Your task to perform on an android device: Go to sound settings Image 0: 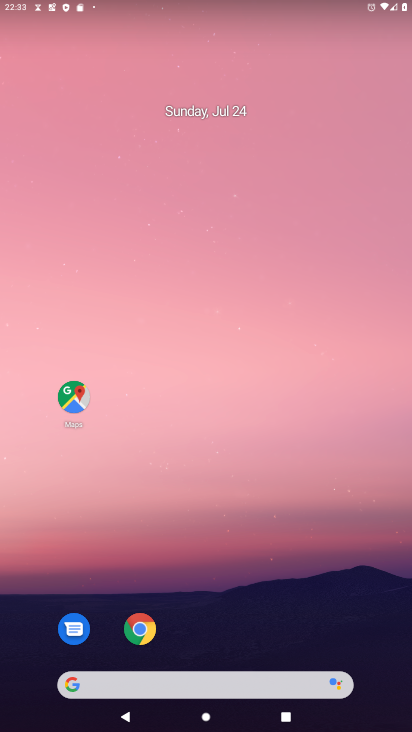
Step 0: click (216, 172)
Your task to perform on an android device: Go to sound settings Image 1: 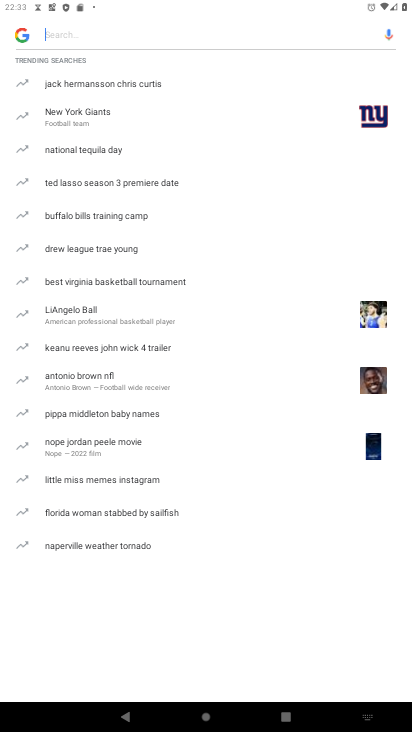
Step 1: press home button
Your task to perform on an android device: Go to sound settings Image 2: 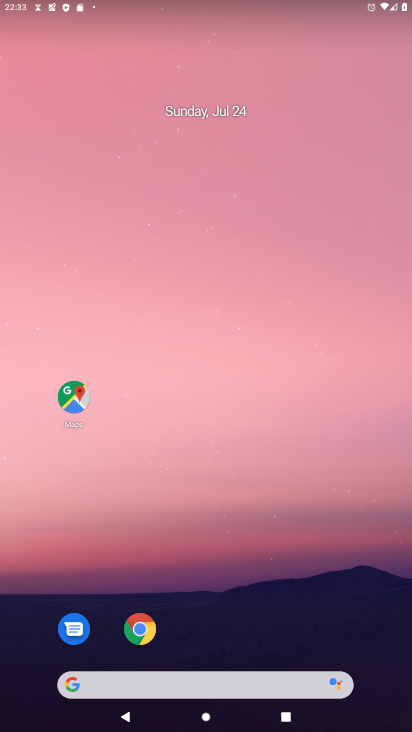
Step 2: drag from (186, 655) to (224, 68)
Your task to perform on an android device: Go to sound settings Image 3: 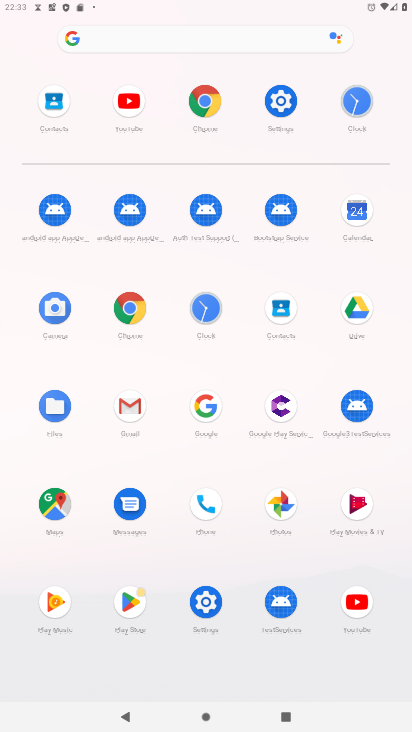
Step 3: click (284, 98)
Your task to perform on an android device: Go to sound settings Image 4: 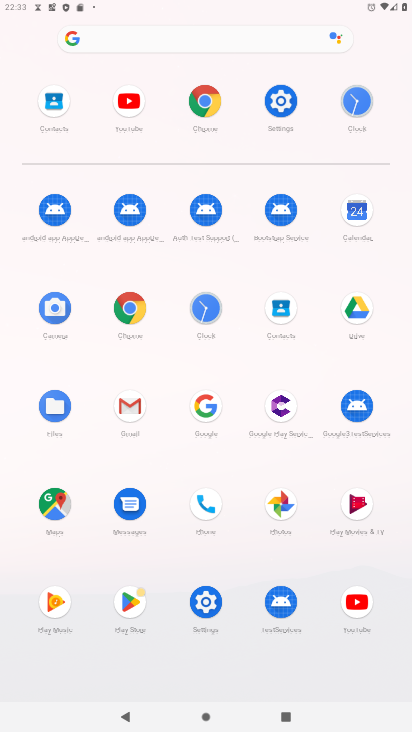
Step 4: click (284, 98)
Your task to perform on an android device: Go to sound settings Image 5: 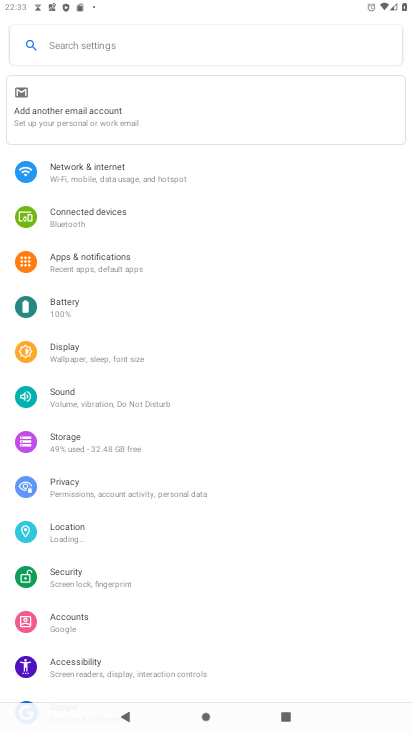
Step 5: click (72, 400)
Your task to perform on an android device: Go to sound settings Image 6: 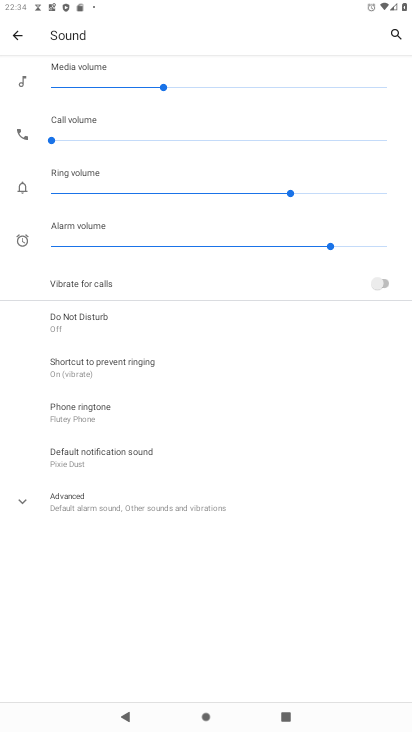
Step 6: task complete